Your task to perform on an android device: choose inbox layout in the gmail app Image 0: 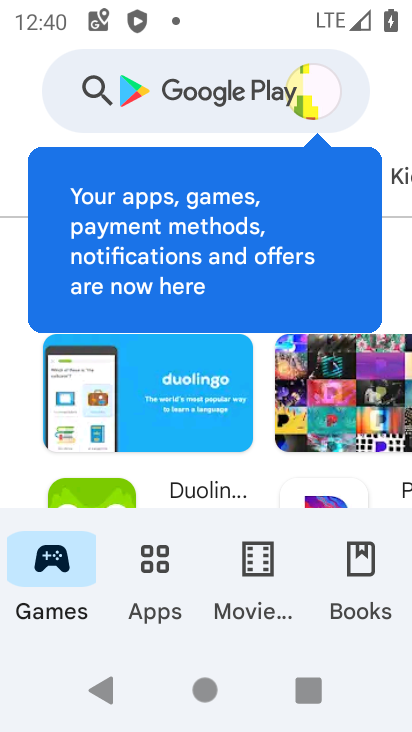
Step 0: press back button
Your task to perform on an android device: choose inbox layout in the gmail app Image 1: 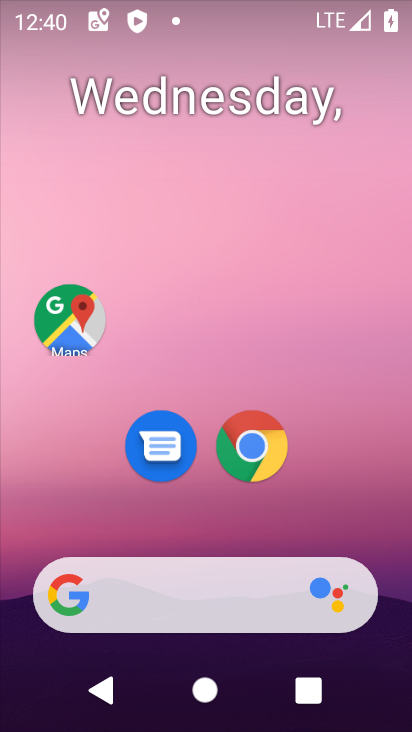
Step 1: drag from (379, 718) to (84, 190)
Your task to perform on an android device: choose inbox layout in the gmail app Image 2: 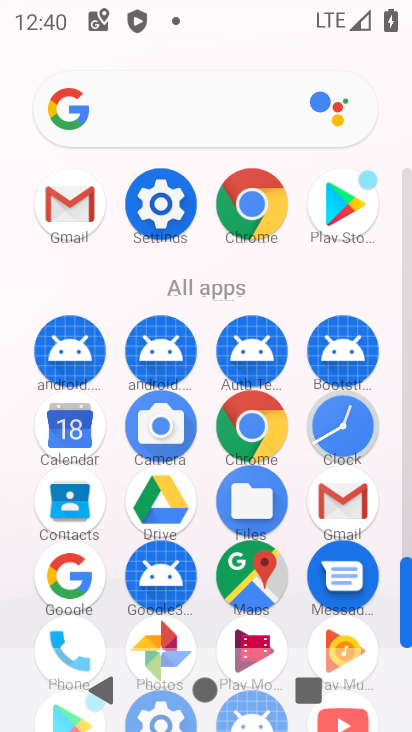
Step 2: click (345, 502)
Your task to perform on an android device: choose inbox layout in the gmail app Image 3: 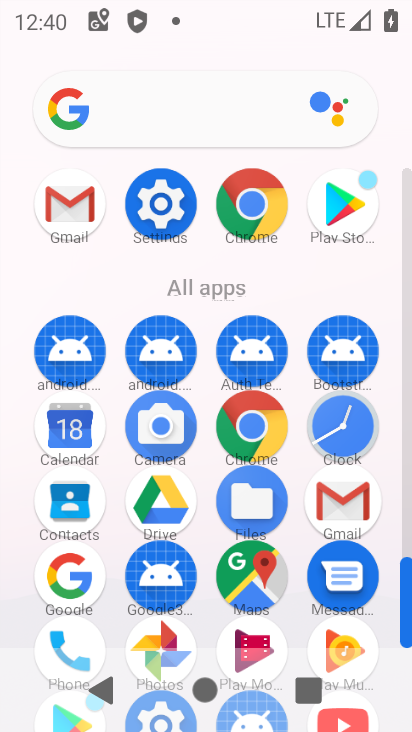
Step 3: click (346, 499)
Your task to perform on an android device: choose inbox layout in the gmail app Image 4: 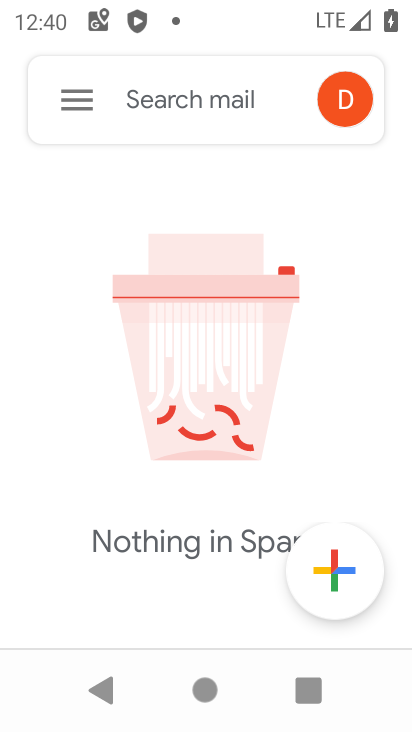
Step 4: click (77, 114)
Your task to perform on an android device: choose inbox layout in the gmail app Image 5: 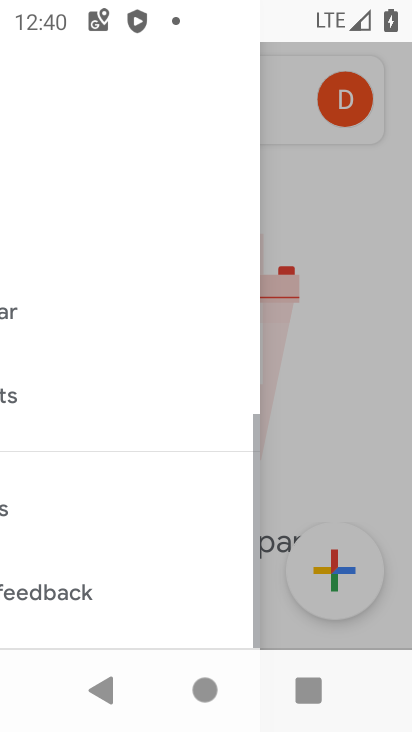
Step 5: click (79, 113)
Your task to perform on an android device: choose inbox layout in the gmail app Image 6: 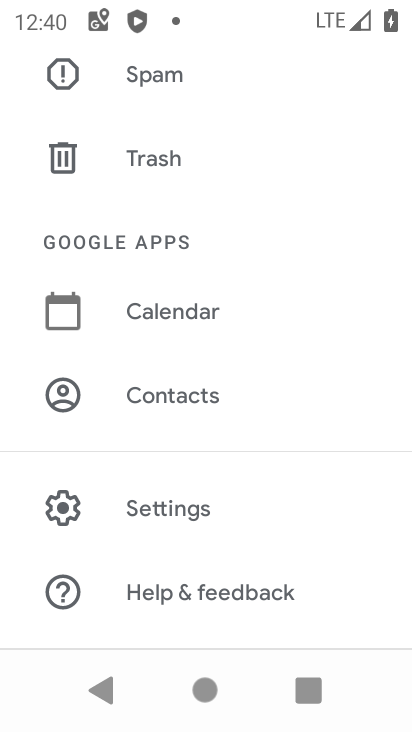
Step 6: drag from (258, 520) to (217, 213)
Your task to perform on an android device: choose inbox layout in the gmail app Image 7: 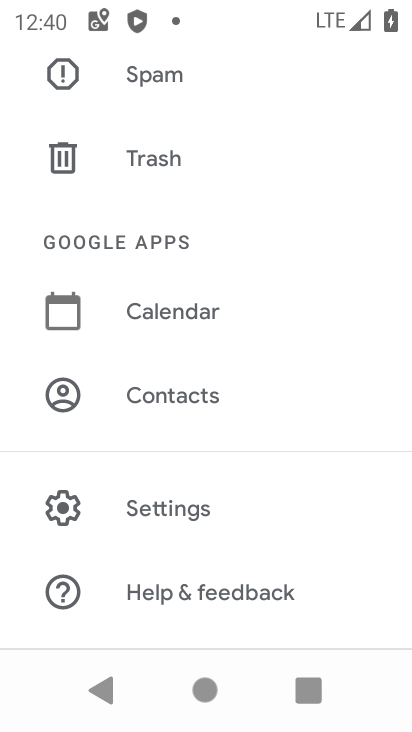
Step 7: click (164, 513)
Your task to perform on an android device: choose inbox layout in the gmail app Image 8: 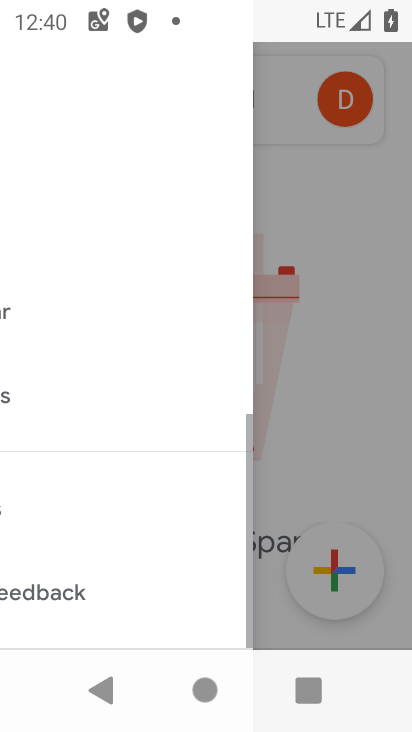
Step 8: click (165, 504)
Your task to perform on an android device: choose inbox layout in the gmail app Image 9: 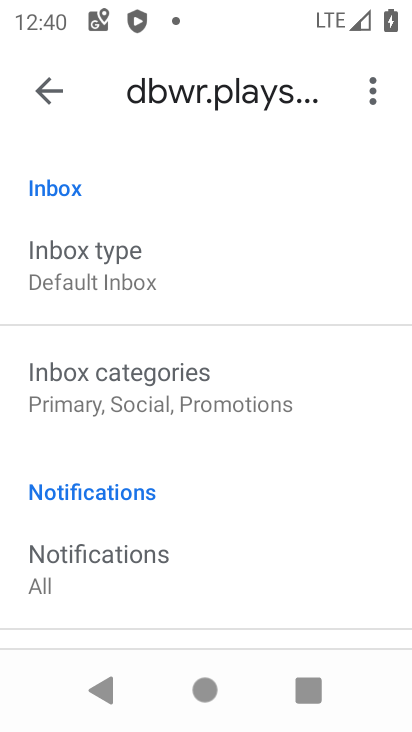
Step 9: click (40, 95)
Your task to perform on an android device: choose inbox layout in the gmail app Image 10: 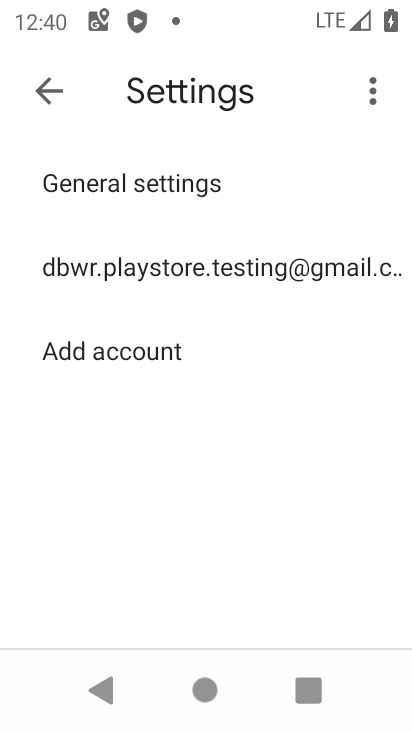
Step 10: click (52, 81)
Your task to perform on an android device: choose inbox layout in the gmail app Image 11: 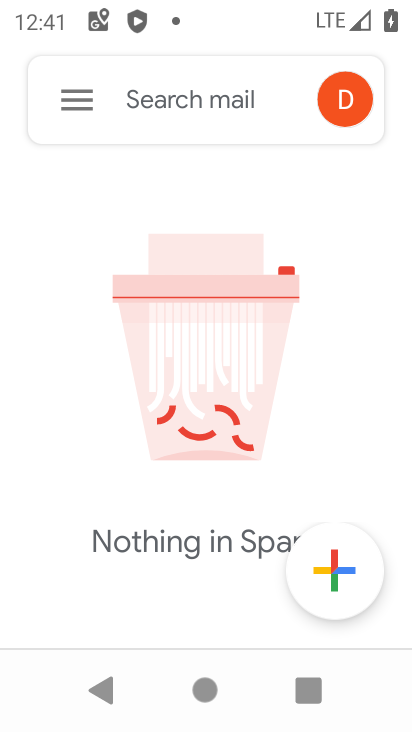
Step 11: click (88, 103)
Your task to perform on an android device: choose inbox layout in the gmail app Image 12: 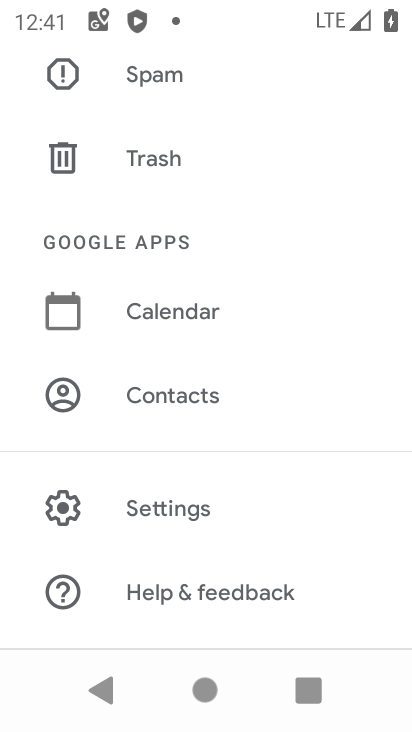
Step 12: click (159, 505)
Your task to perform on an android device: choose inbox layout in the gmail app Image 13: 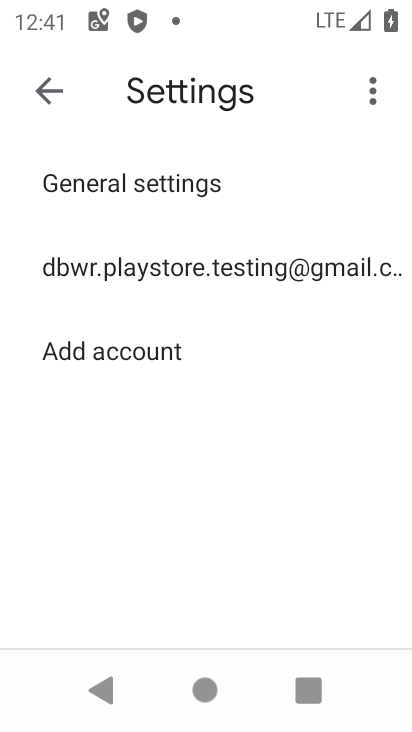
Step 13: click (235, 270)
Your task to perform on an android device: choose inbox layout in the gmail app Image 14: 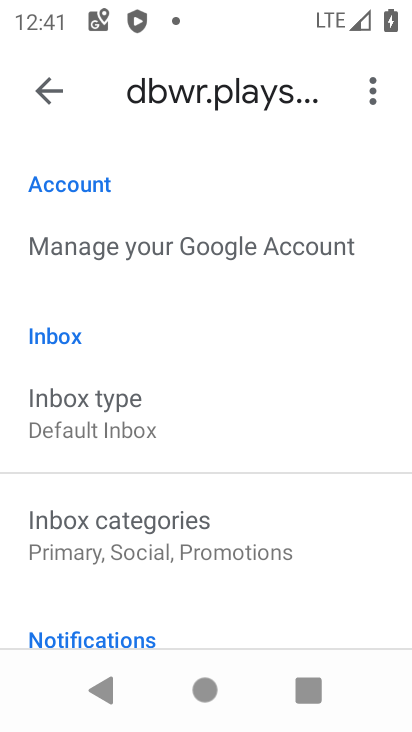
Step 14: click (95, 411)
Your task to perform on an android device: choose inbox layout in the gmail app Image 15: 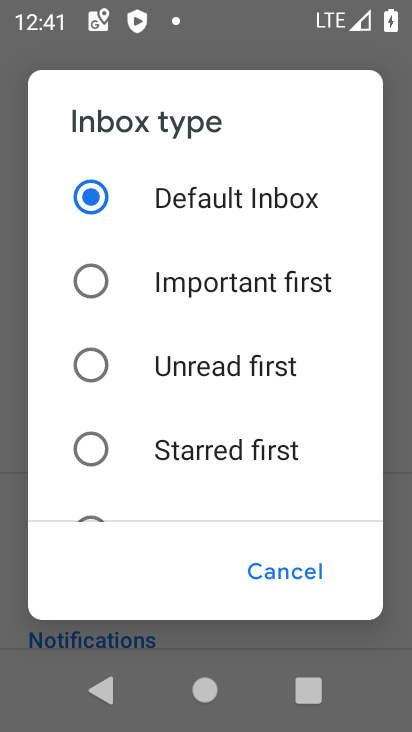
Step 15: drag from (184, 432) to (158, 95)
Your task to perform on an android device: choose inbox layout in the gmail app Image 16: 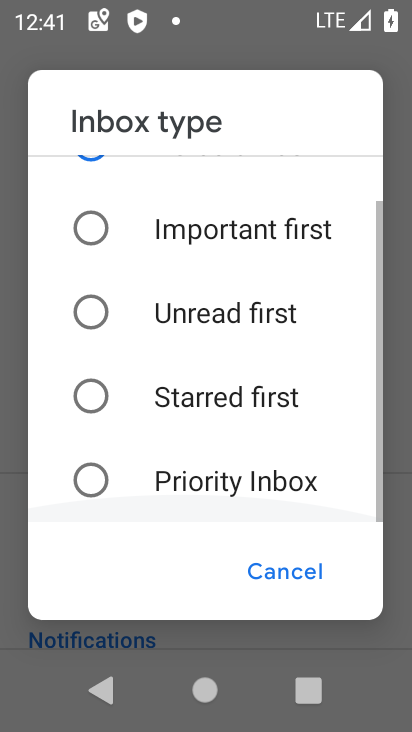
Step 16: drag from (256, 322) to (238, 108)
Your task to perform on an android device: choose inbox layout in the gmail app Image 17: 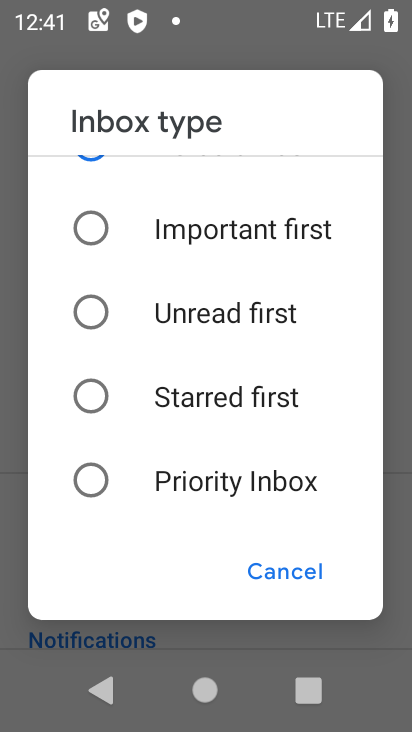
Step 17: drag from (189, 300) to (241, 556)
Your task to perform on an android device: choose inbox layout in the gmail app Image 18: 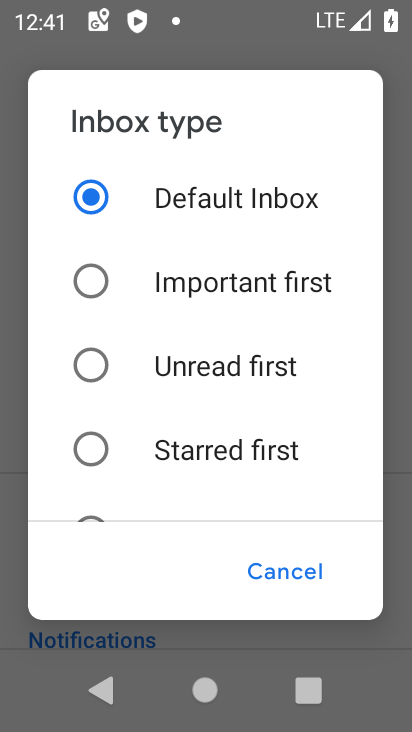
Step 18: click (286, 570)
Your task to perform on an android device: choose inbox layout in the gmail app Image 19: 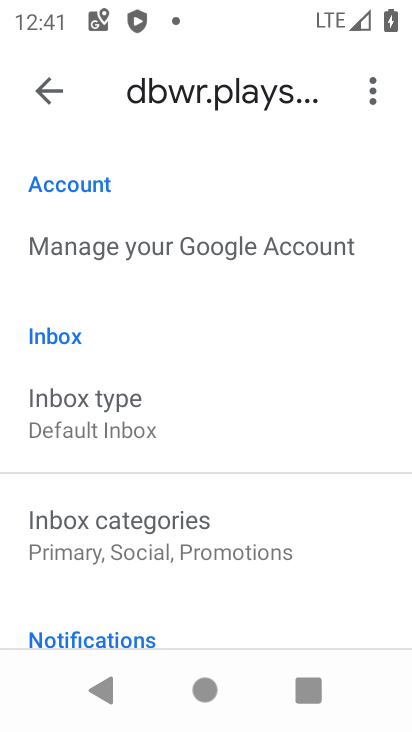
Step 19: drag from (133, 582) to (136, 189)
Your task to perform on an android device: choose inbox layout in the gmail app Image 20: 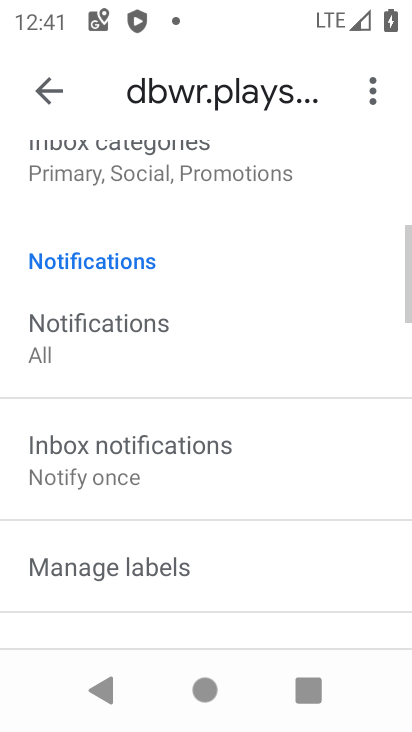
Step 20: drag from (123, 418) to (123, 202)
Your task to perform on an android device: choose inbox layout in the gmail app Image 21: 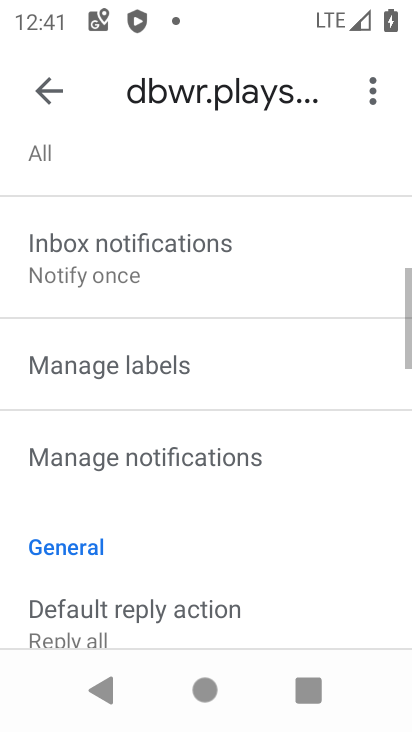
Step 21: drag from (123, 465) to (129, 250)
Your task to perform on an android device: choose inbox layout in the gmail app Image 22: 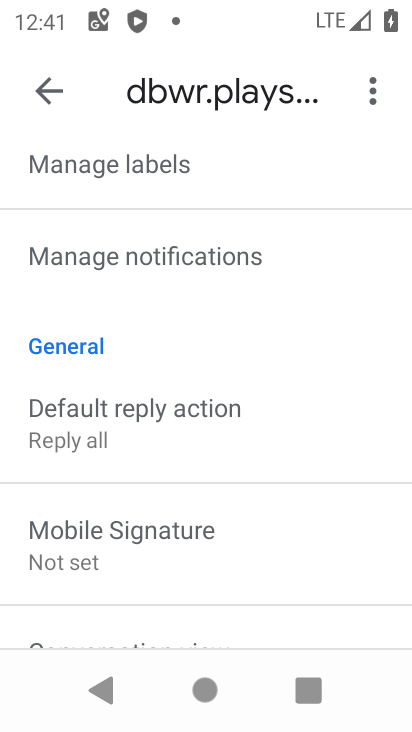
Step 22: drag from (111, 269) to (173, 569)
Your task to perform on an android device: choose inbox layout in the gmail app Image 23: 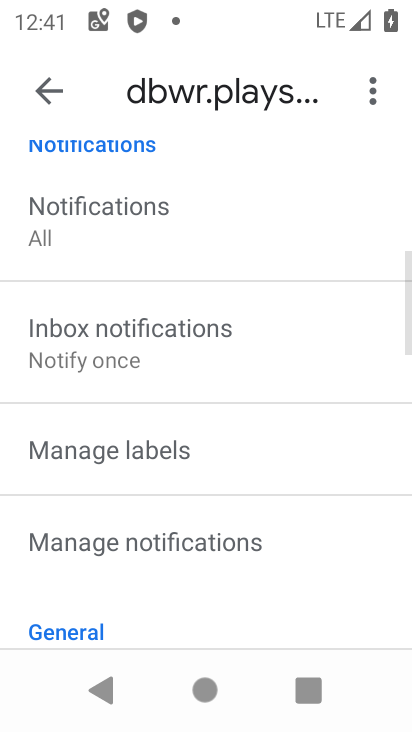
Step 23: drag from (187, 418) to (280, 676)
Your task to perform on an android device: choose inbox layout in the gmail app Image 24: 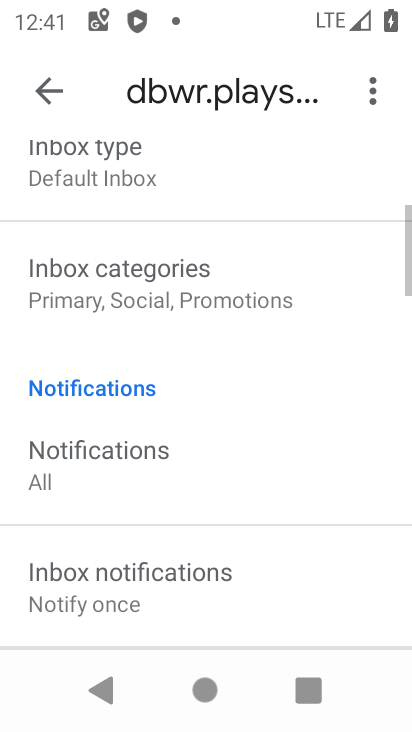
Step 24: drag from (149, 287) to (202, 577)
Your task to perform on an android device: choose inbox layout in the gmail app Image 25: 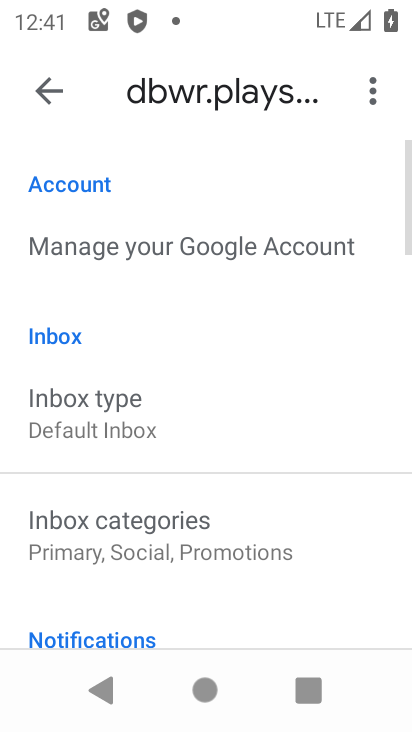
Step 25: drag from (156, 211) to (197, 563)
Your task to perform on an android device: choose inbox layout in the gmail app Image 26: 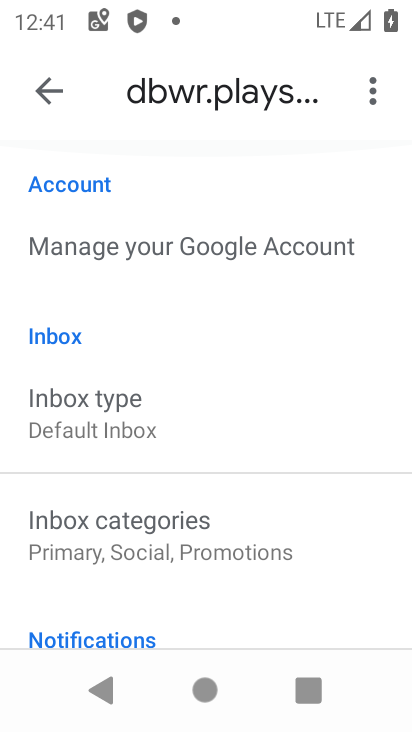
Step 26: drag from (177, 230) to (253, 499)
Your task to perform on an android device: choose inbox layout in the gmail app Image 27: 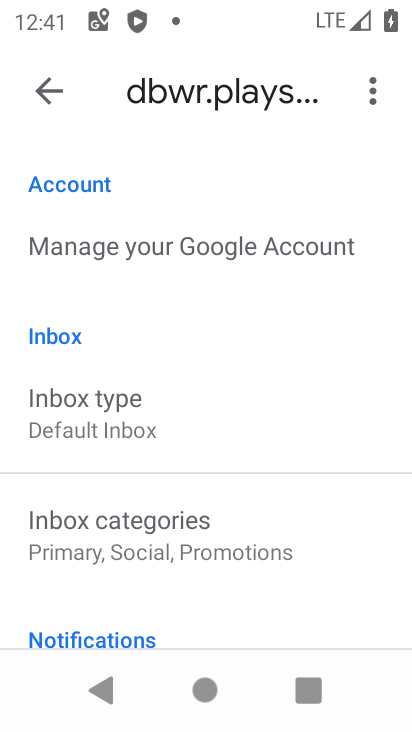
Step 27: click (39, 92)
Your task to perform on an android device: choose inbox layout in the gmail app Image 28: 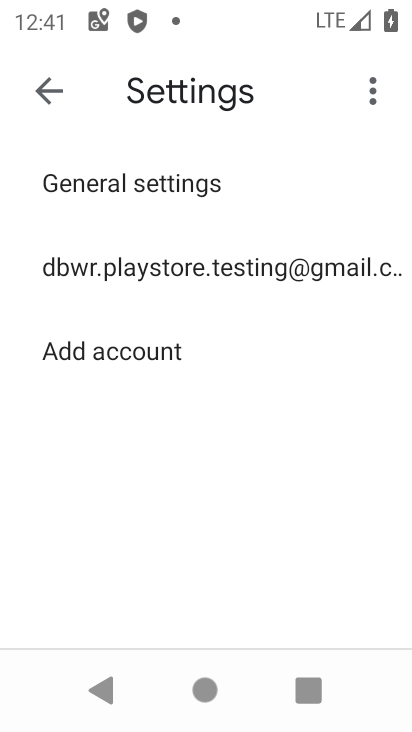
Step 28: click (40, 91)
Your task to perform on an android device: choose inbox layout in the gmail app Image 29: 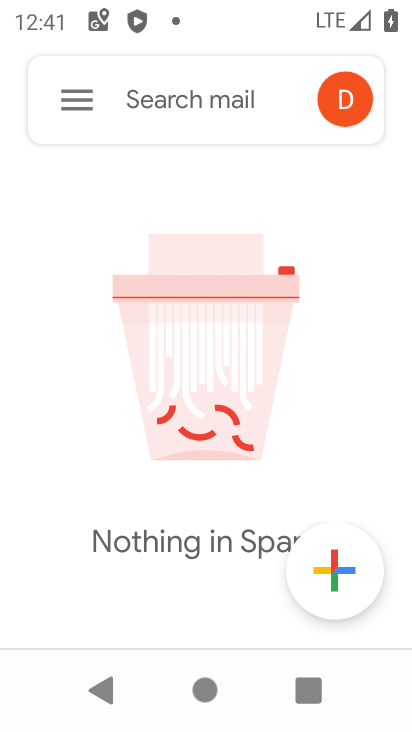
Step 29: click (66, 101)
Your task to perform on an android device: choose inbox layout in the gmail app Image 30: 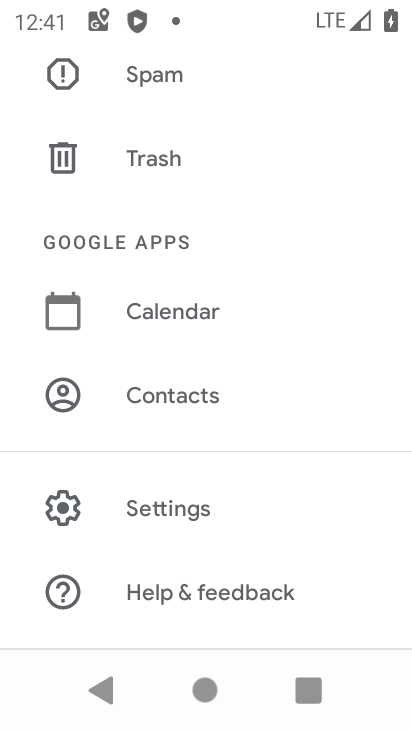
Step 30: drag from (150, 117) to (246, 557)
Your task to perform on an android device: choose inbox layout in the gmail app Image 31: 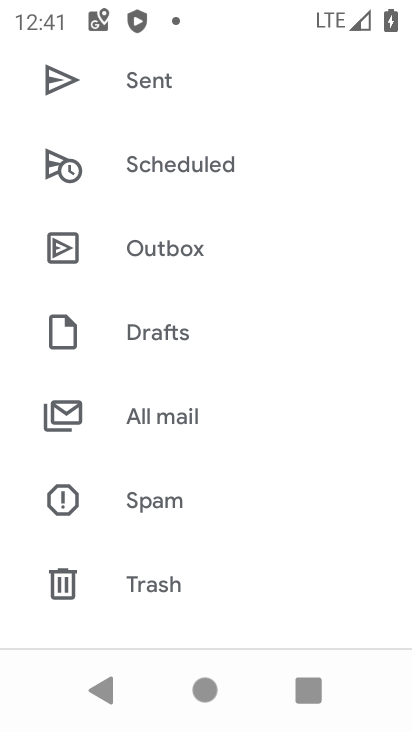
Step 31: click (165, 419)
Your task to perform on an android device: choose inbox layout in the gmail app Image 32: 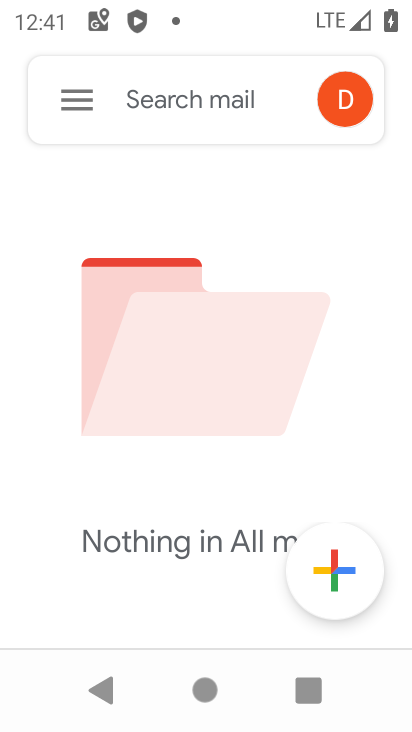
Step 32: task complete